Your task to perform on an android device: Go to Google maps Image 0: 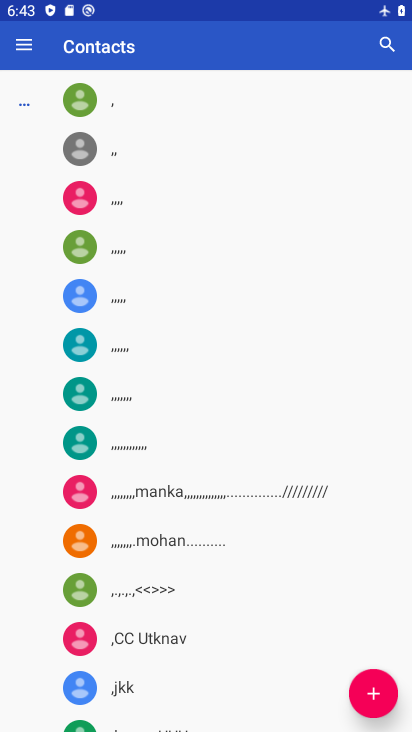
Step 0: press home button
Your task to perform on an android device: Go to Google maps Image 1: 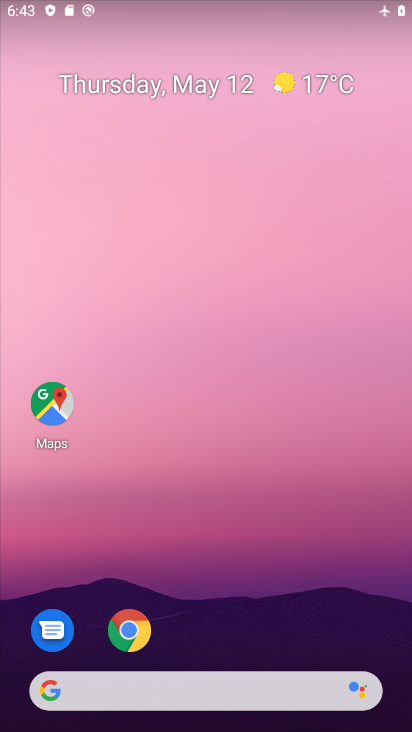
Step 1: click (57, 402)
Your task to perform on an android device: Go to Google maps Image 2: 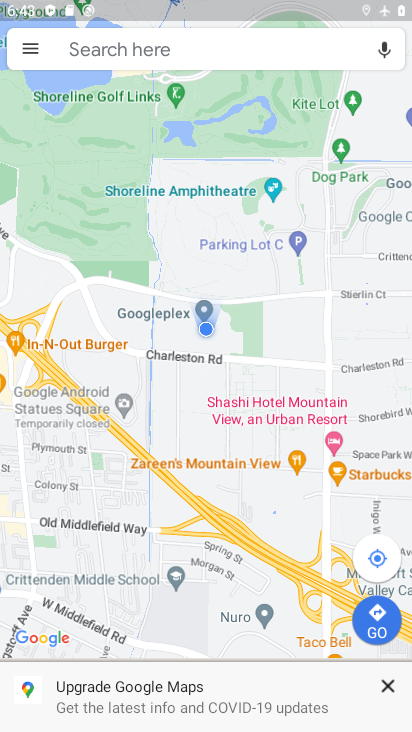
Step 2: task complete